Your task to perform on an android device: open app "Gboard" Image 0: 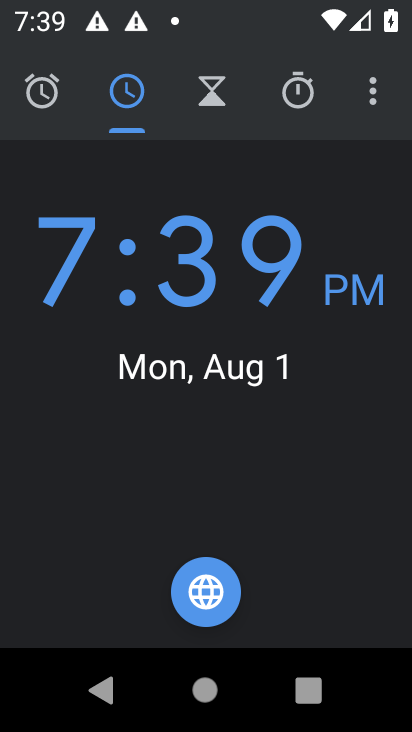
Step 0: press home button
Your task to perform on an android device: open app "Gboard" Image 1: 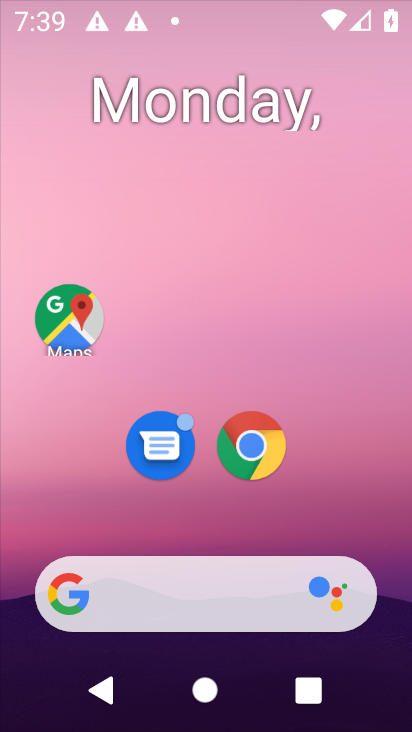
Step 1: drag from (388, 641) to (289, 37)
Your task to perform on an android device: open app "Gboard" Image 2: 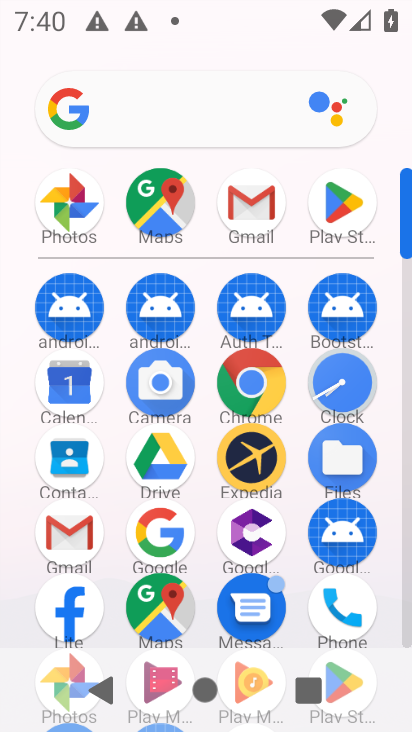
Step 2: click (355, 213)
Your task to perform on an android device: open app "Gboard" Image 3: 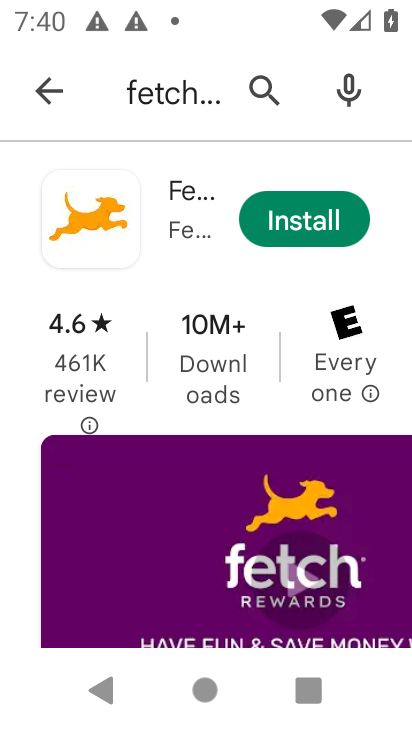
Step 3: press back button
Your task to perform on an android device: open app "Gboard" Image 4: 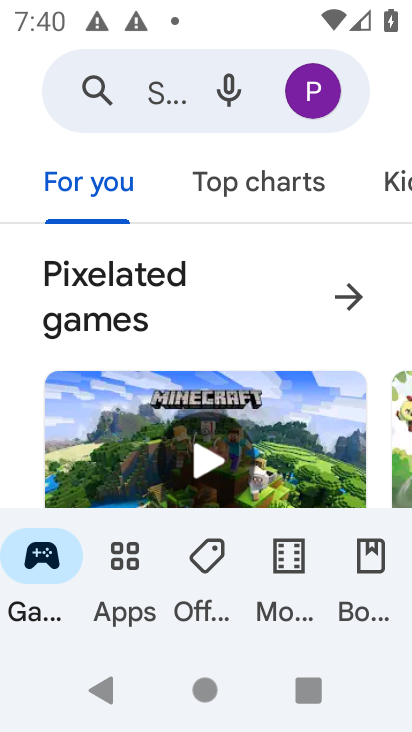
Step 4: click (129, 99)
Your task to perform on an android device: open app "Gboard" Image 5: 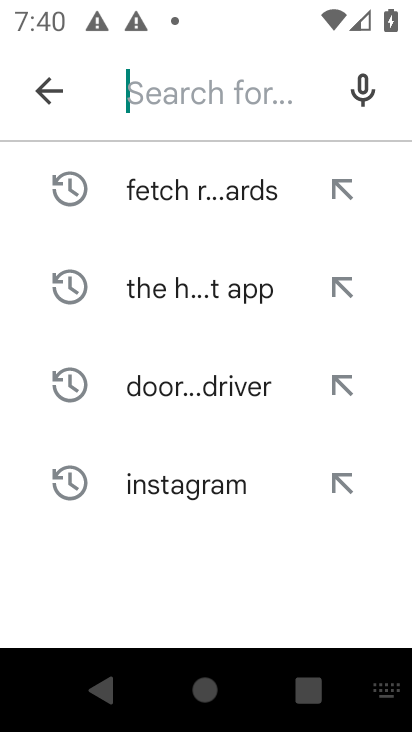
Step 5: type "Gboard"
Your task to perform on an android device: open app "Gboard" Image 6: 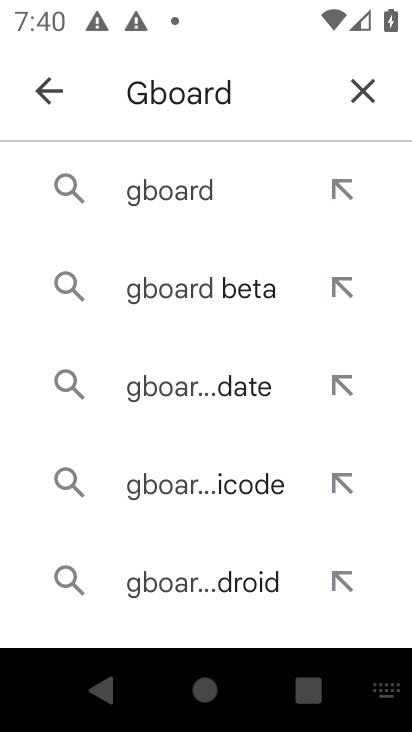
Step 6: click (175, 192)
Your task to perform on an android device: open app "Gboard" Image 7: 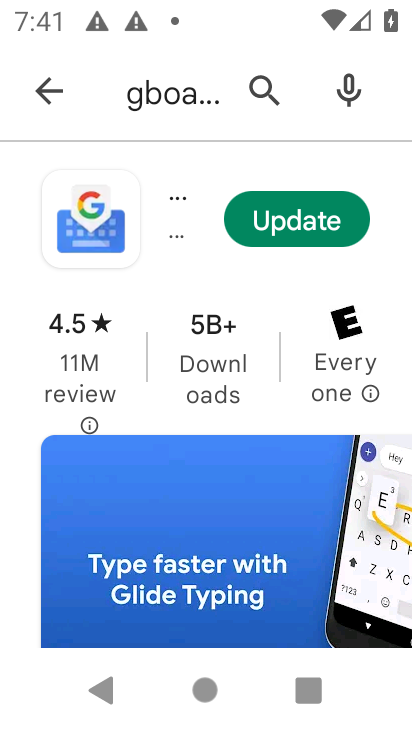
Step 7: click (287, 228)
Your task to perform on an android device: open app "Gboard" Image 8: 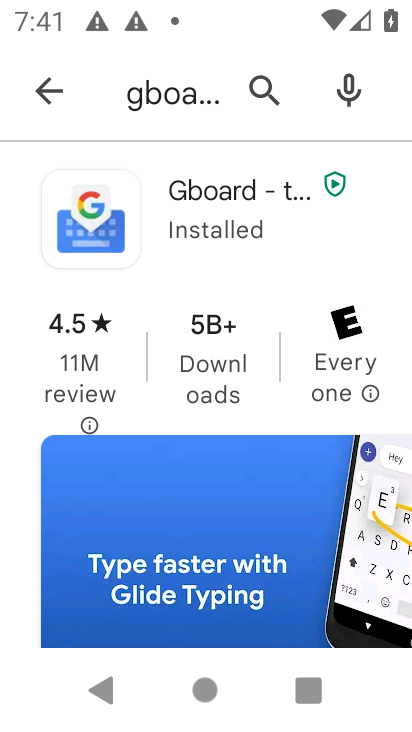
Step 8: drag from (260, 571) to (200, 148)
Your task to perform on an android device: open app "Gboard" Image 9: 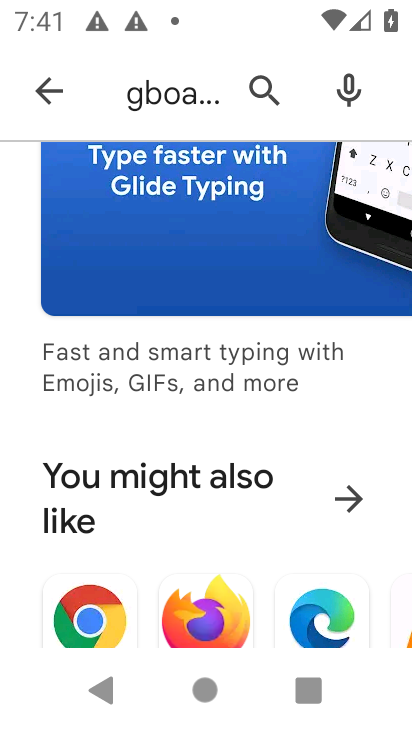
Step 9: drag from (243, 194) to (187, 680)
Your task to perform on an android device: open app "Gboard" Image 10: 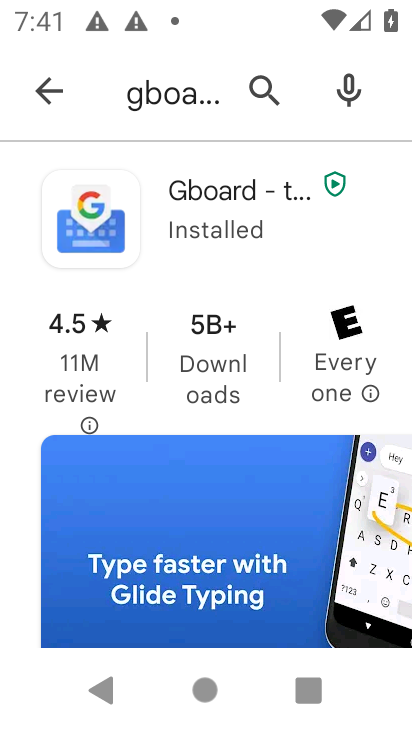
Step 10: click (211, 214)
Your task to perform on an android device: open app "Gboard" Image 11: 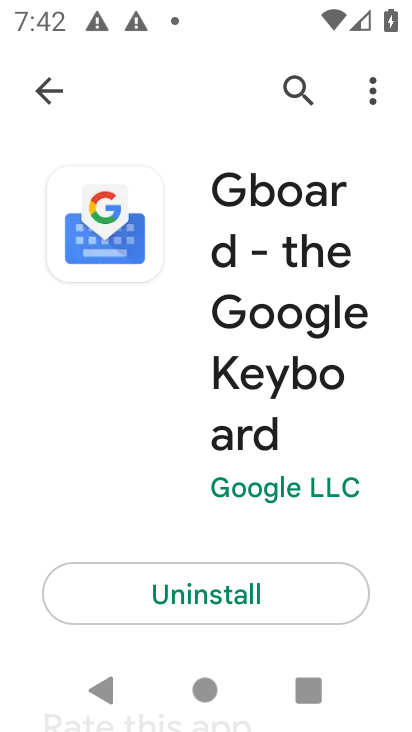
Step 11: task complete